Your task to perform on an android device: change alarm snooze length Image 0: 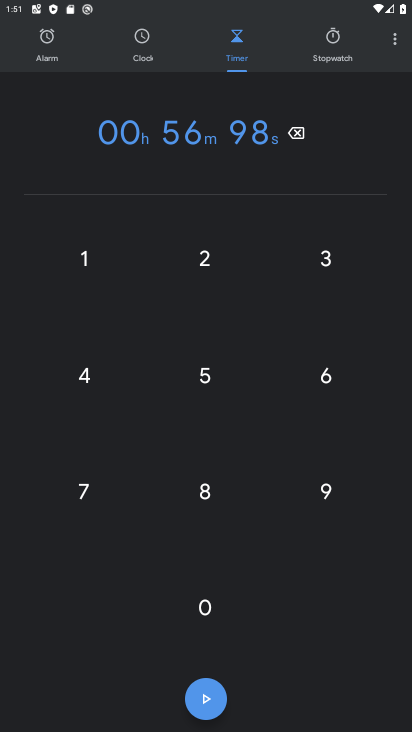
Step 0: press home button
Your task to perform on an android device: change alarm snooze length Image 1: 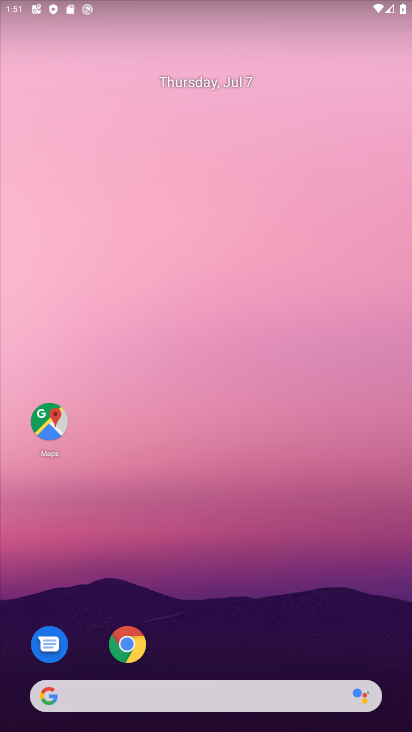
Step 1: drag from (240, 685) to (218, 12)
Your task to perform on an android device: change alarm snooze length Image 2: 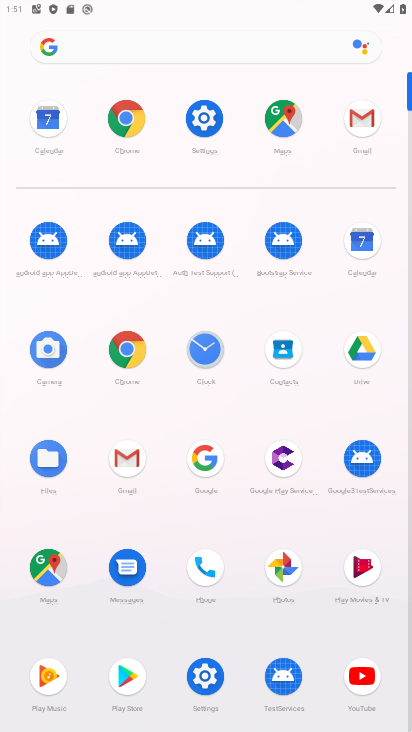
Step 2: click (206, 341)
Your task to perform on an android device: change alarm snooze length Image 3: 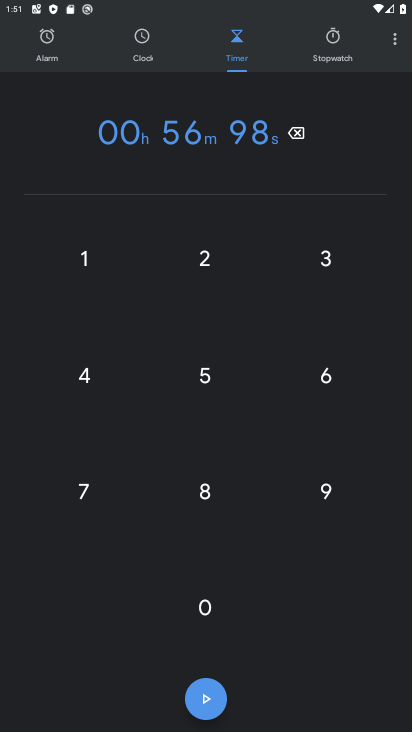
Step 3: click (398, 37)
Your task to perform on an android device: change alarm snooze length Image 4: 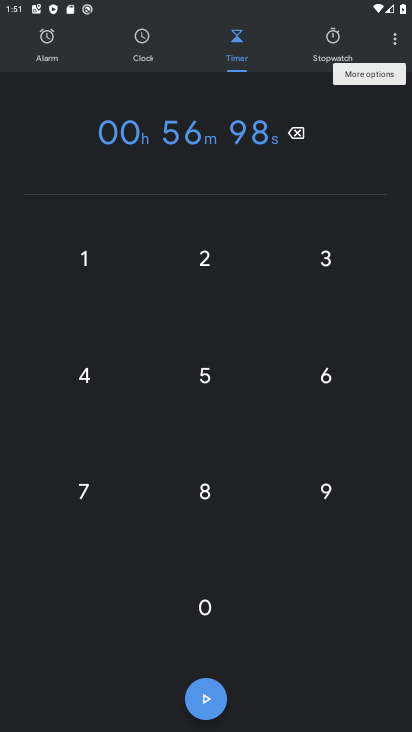
Step 4: click (398, 37)
Your task to perform on an android device: change alarm snooze length Image 5: 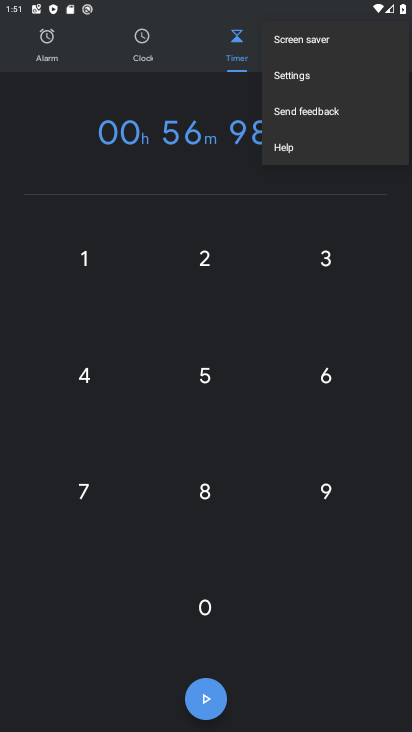
Step 5: click (350, 73)
Your task to perform on an android device: change alarm snooze length Image 6: 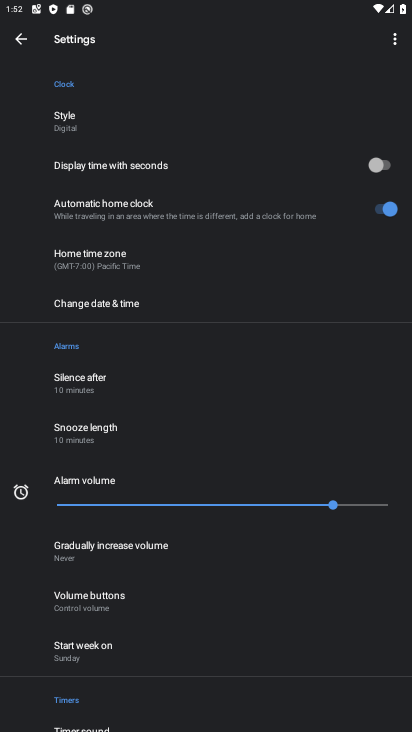
Step 6: click (143, 422)
Your task to perform on an android device: change alarm snooze length Image 7: 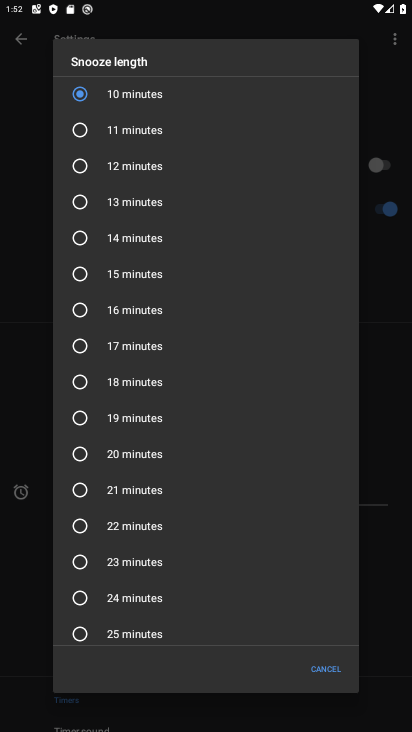
Step 7: click (121, 364)
Your task to perform on an android device: change alarm snooze length Image 8: 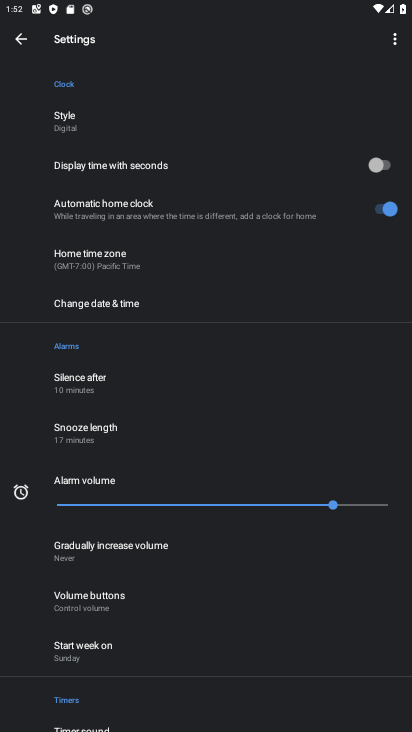
Step 8: task complete